Your task to perform on an android device: Search for the best rated headphones on Amazon. Image 0: 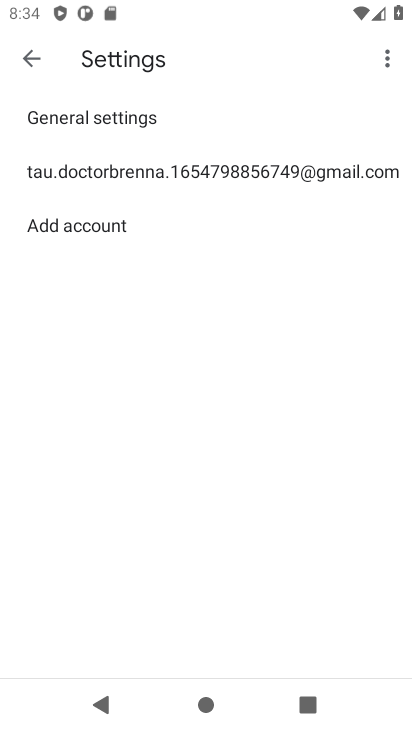
Step 0: press home button
Your task to perform on an android device: Search for the best rated headphones on Amazon. Image 1: 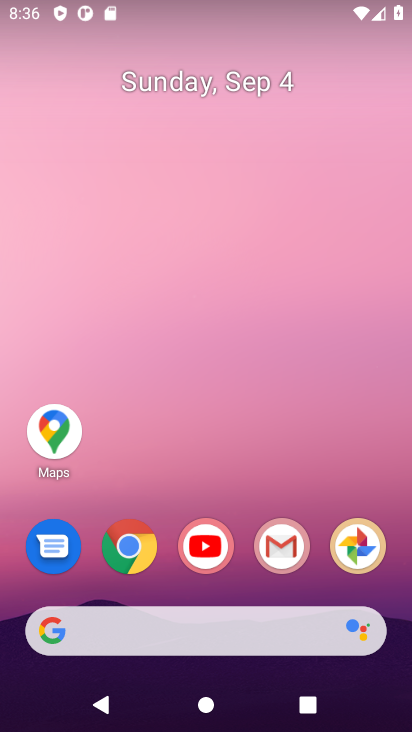
Step 1: click (137, 550)
Your task to perform on an android device: Search for the best rated headphones on Amazon. Image 2: 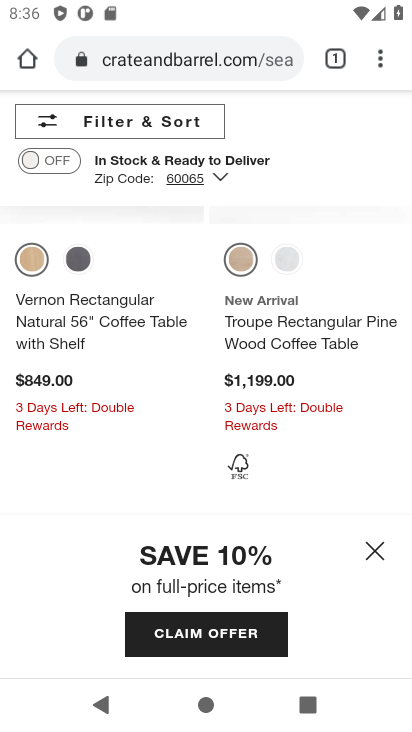
Step 2: click (233, 63)
Your task to perform on an android device: Search for the best rated headphones on Amazon. Image 3: 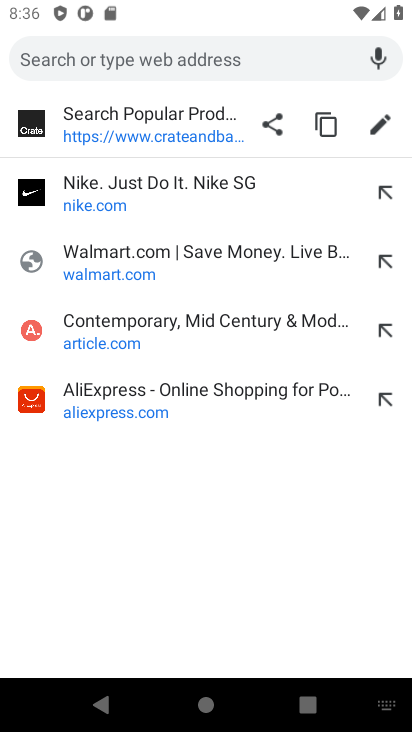
Step 3: type "amazon"
Your task to perform on an android device: Search for the best rated headphones on Amazon. Image 4: 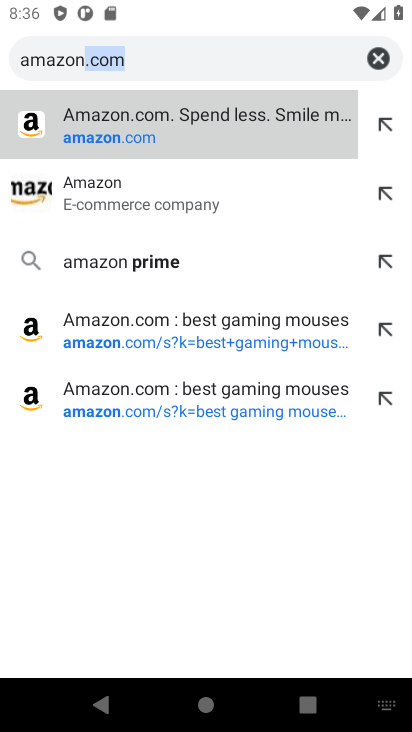
Step 4: click (98, 148)
Your task to perform on an android device: Search for the best rated headphones on Amazon. Image 5: 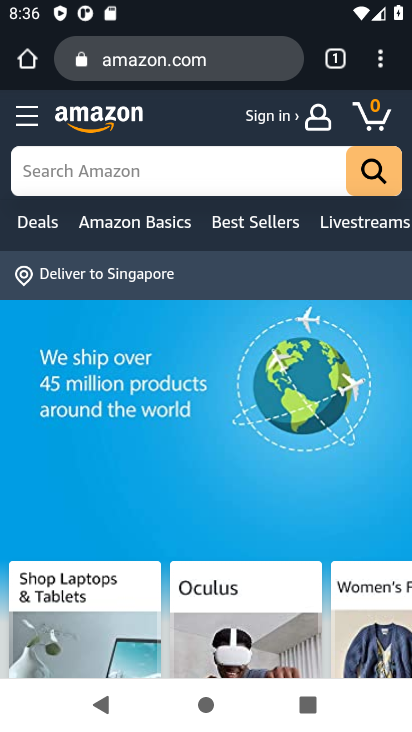
Step 5: click (189, 176)
Your task to perform on an android device: Search for the best rated headphones on Amazon. Image 6: 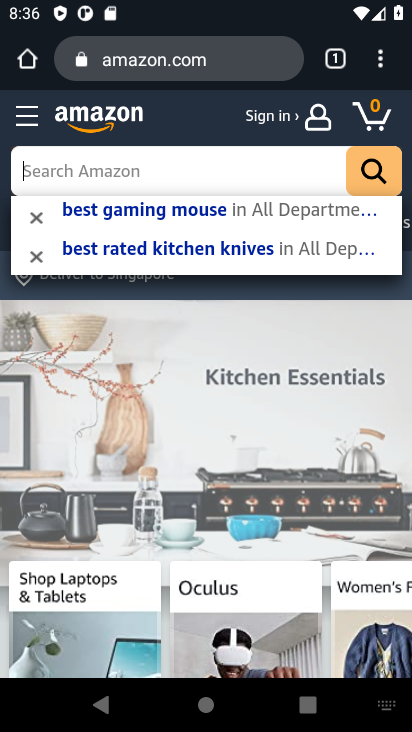
Step 6: type " best rated headphones "
Your task to perform on an android device: Search for the best rated headphones on Amazon. Image 7: 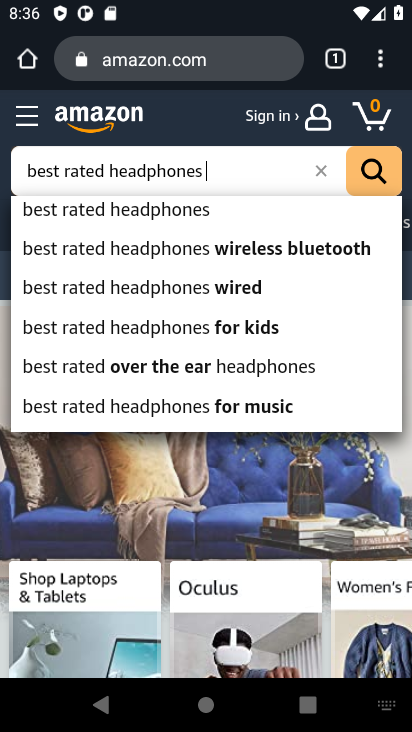
Step 7: click (112, 222)
Your task to perform on an android device: Search for the best rated headphones on Amazon. Image 8: 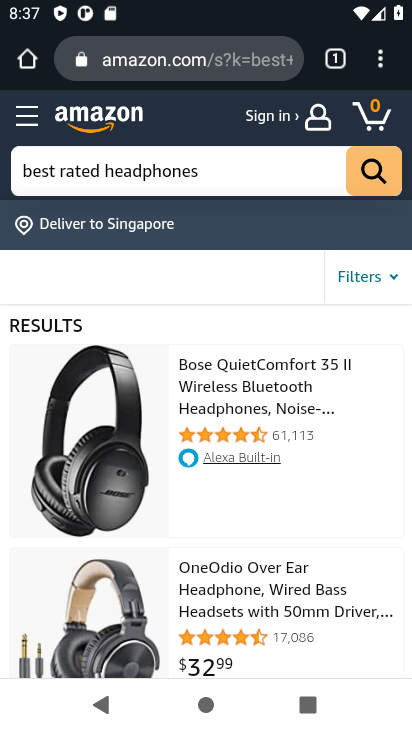
Step 8: task complete